Your task to perform on an android device: turn on wifi Image 0: 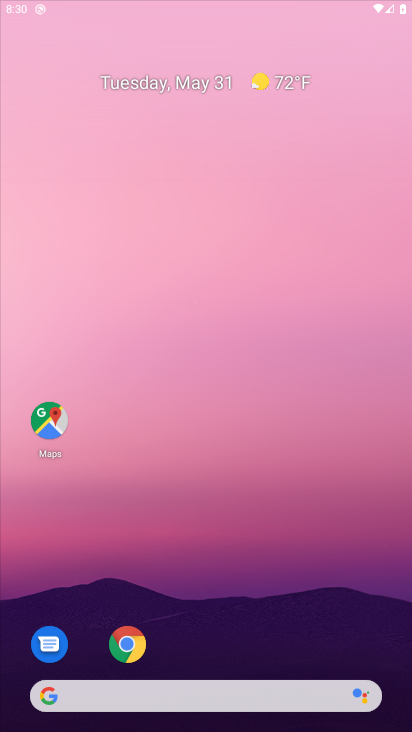
Step 0: press home button
Your task to perform on an android device: turn on wifi Image 1: 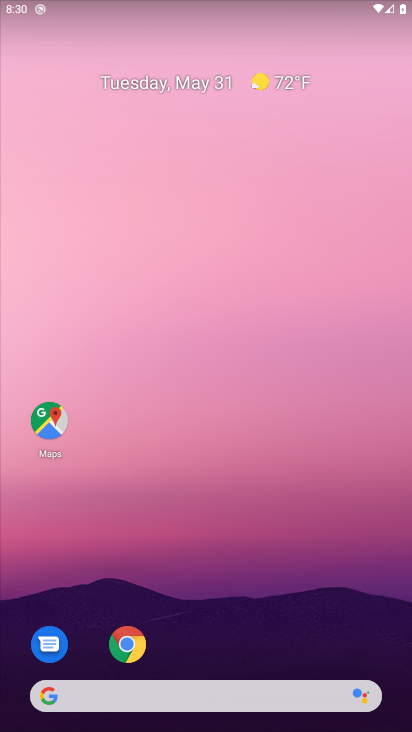
Step 1: task complete